Your task to perform on an android device: What's on my calendar tomorrow? Image 0: 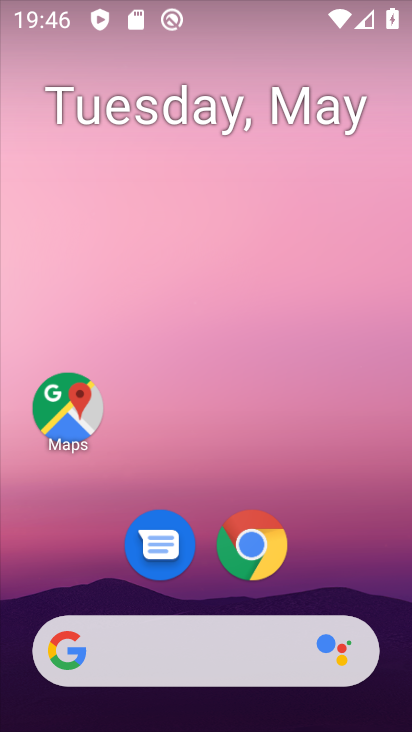
Step 0: drag from (351, 597) to (333, 246)
Your task to perform on an android device: What's on my calendar tomorrow? Image 1: 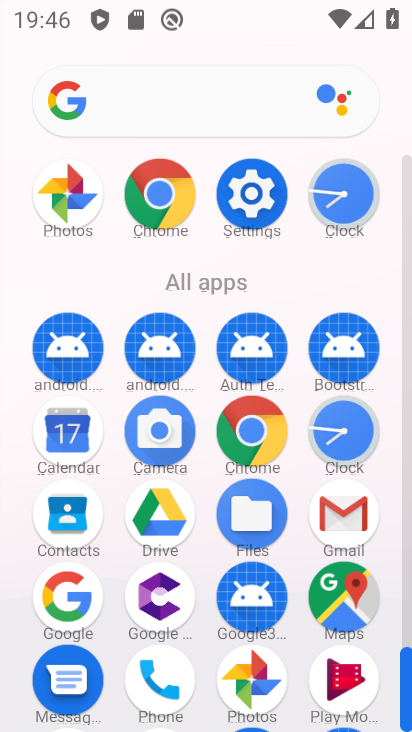
Step 1: click (62, 444)
Your task to perform on an android device: What's on my calendar tomorrow? Image 2: 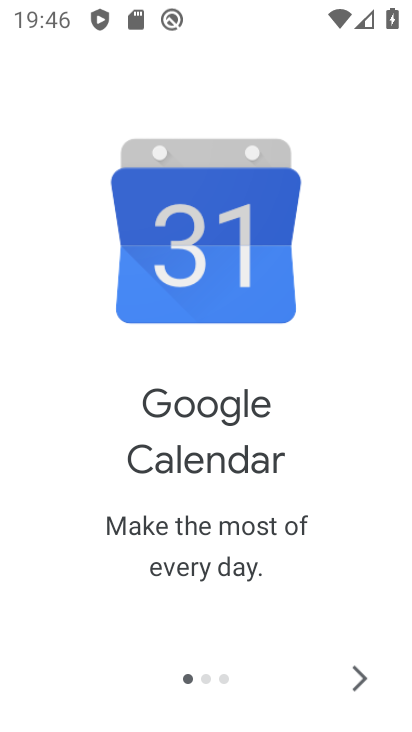
Step 2: click (353, 673)
Your task to perform on an android device: What's on my calendar tomorrow? Image 3: 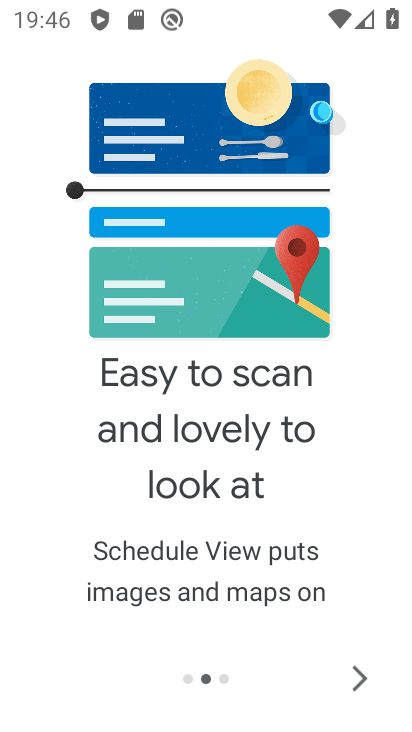
Step 3: click (353, 673)
Your task to perform on an android device: What's on my calendar tomorrow? Image 4: 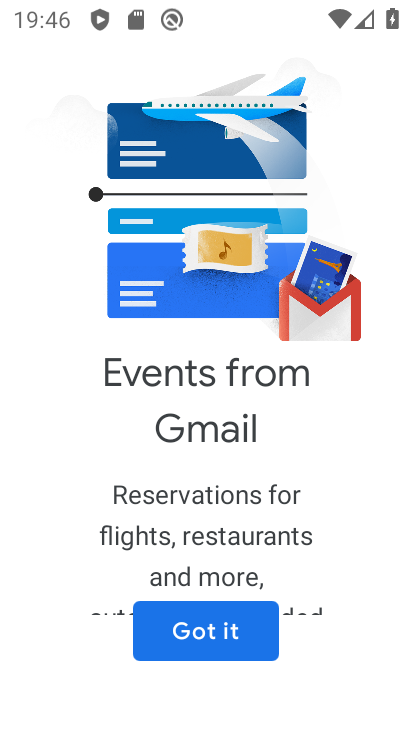
Step 4: click (243, 614)
Your task to perform on an android device: What's on my calendar tomorrow? Image 5: 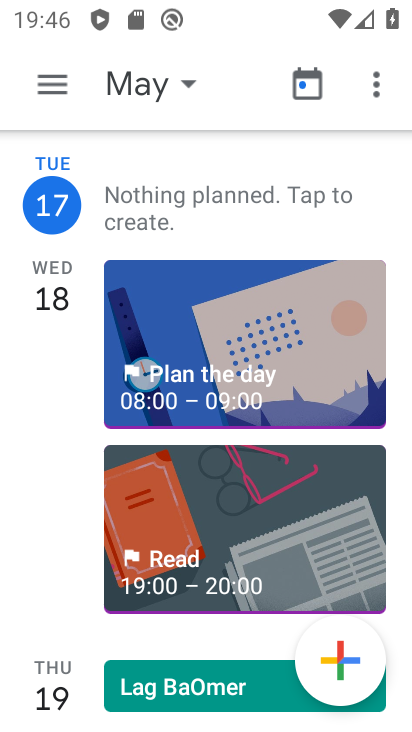
Step 5: click (63, 106)
Your task to perform on an android device: What's on my calendar tomorrow? Image 6: 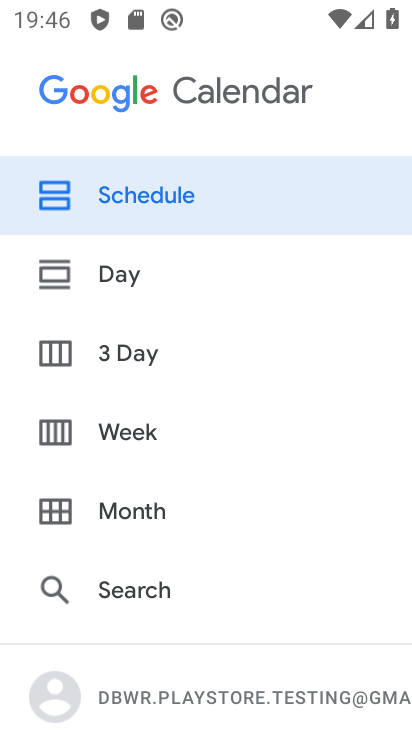
Step 6: click (94, 282)
Your task to perform on an android device: What's on my calendar tomorrow? Image 7: 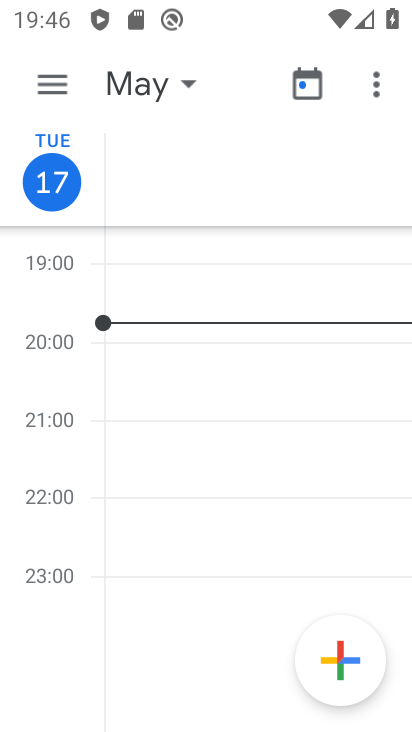
Step 7: click (175, 85)
Your task to perform on an android device: What's on my calendar tomorrow? Image 8: 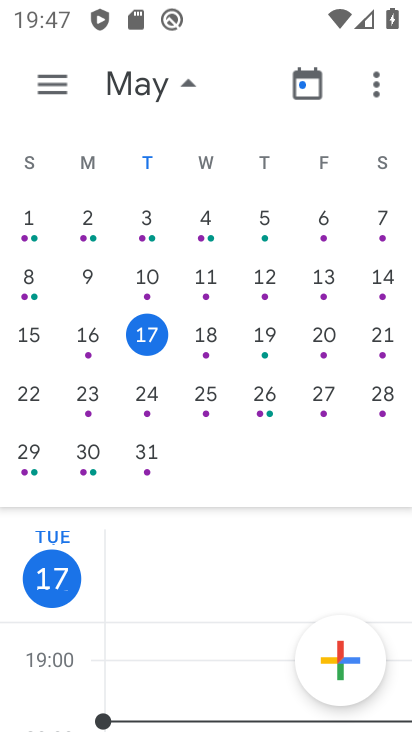
Step 8: click (214, 327)
Your task to perform on an android device: What's on my calendar tomorrow? Image 9: 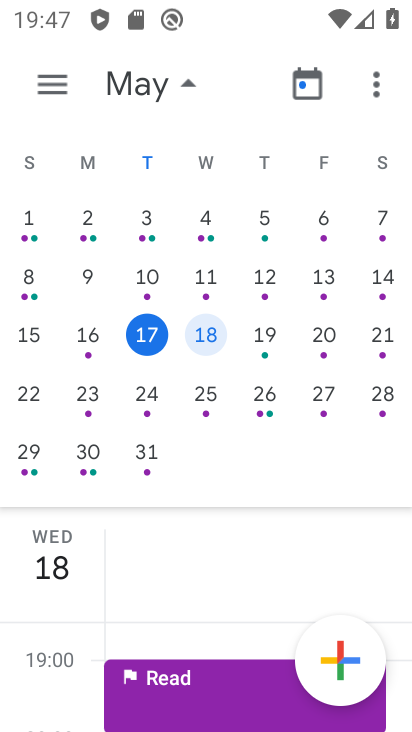
Step 9: task complete